Your task to perform on an android device: set an alarm Image 0: 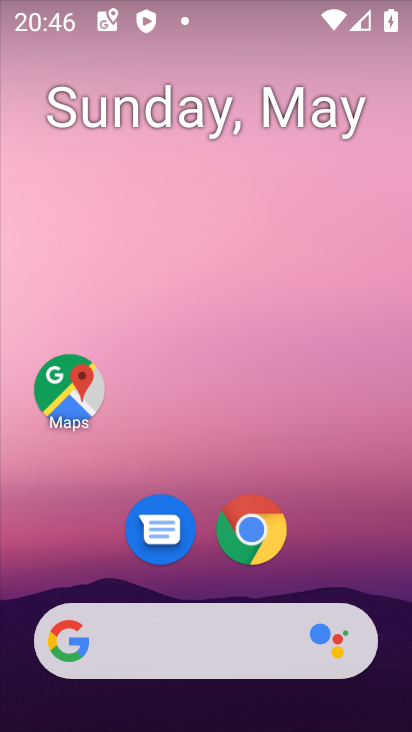
Step 0: drag from (387, 589) to (366, 18)
Your task to perform on an android device: set an alarm Image 1: 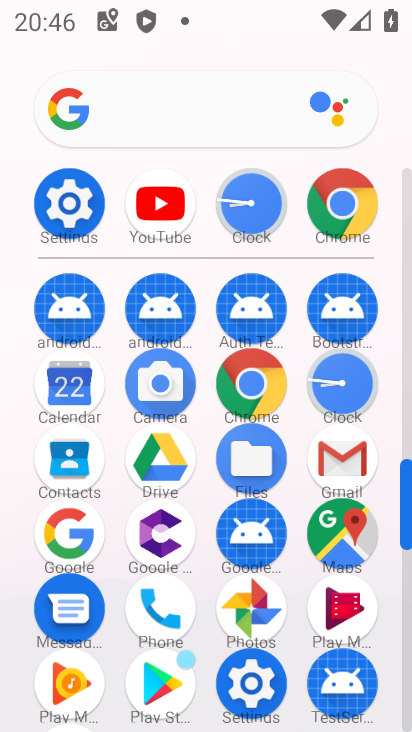
Step 1: click (242, 209)
Your task to perform on an android device: set an alarm Image 2: 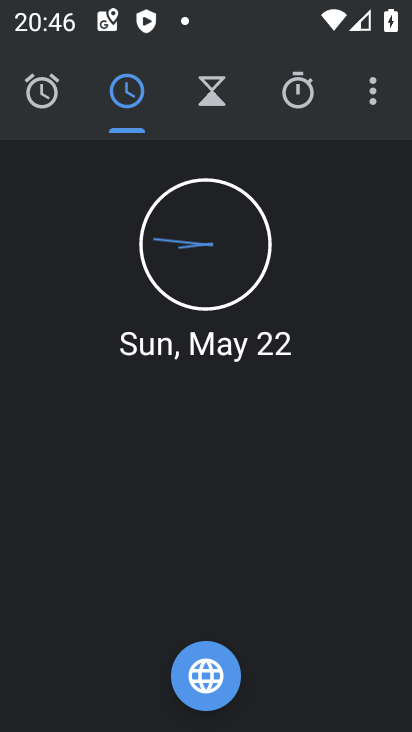
Step 2: click (31, 96)
Your task to perform on an android device: set an alarm Image 3: 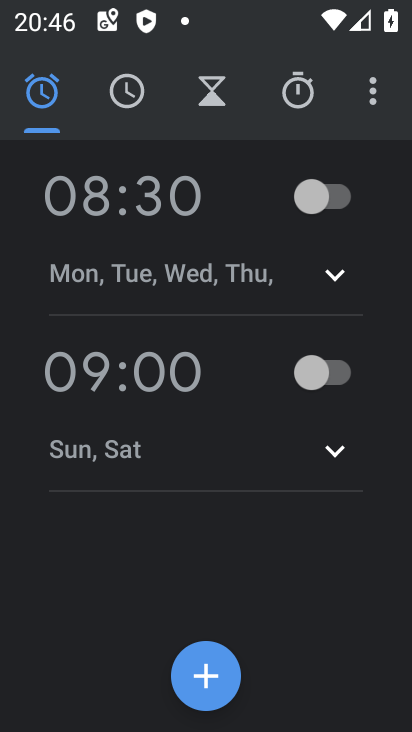
Step 3: click (211, 682)
Your task to perform on an android device: set an alarm Image 4: 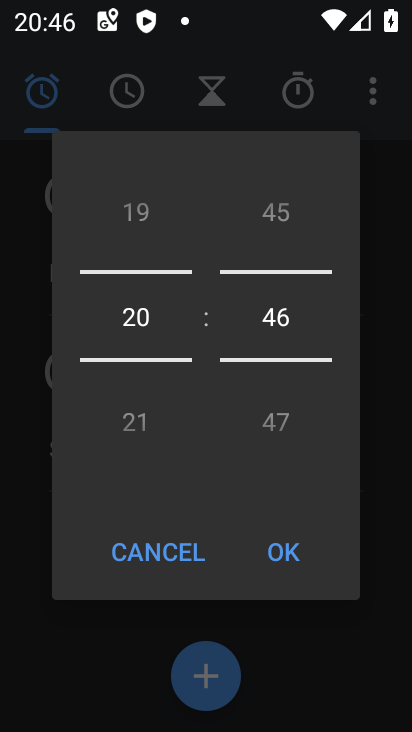
Step 4: drag from (124, 311) to (124, 533)
Your task to perform on an android device: set an alarm Image 5: 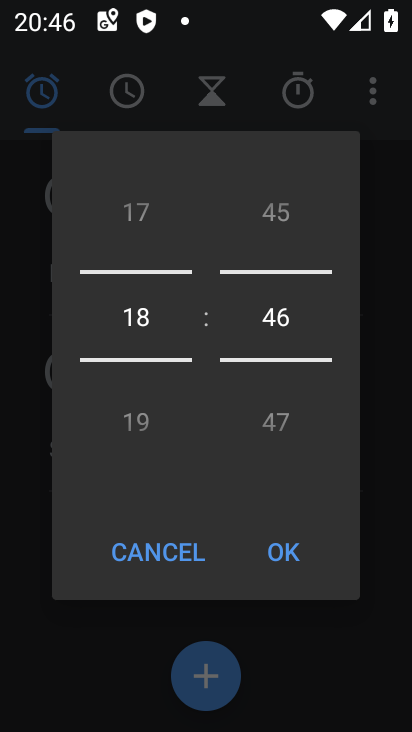
Step 5: drag from (144, 319) to (150, 567)
Your task to perform on an android device: set an alarm Image 6: 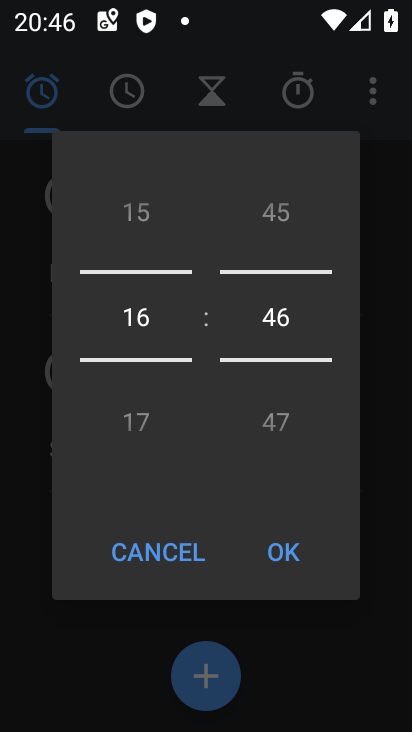
Step 6: drag from (279, 322) to (278, 423)
Your task to perform on an android device: set an alarm Image 7: 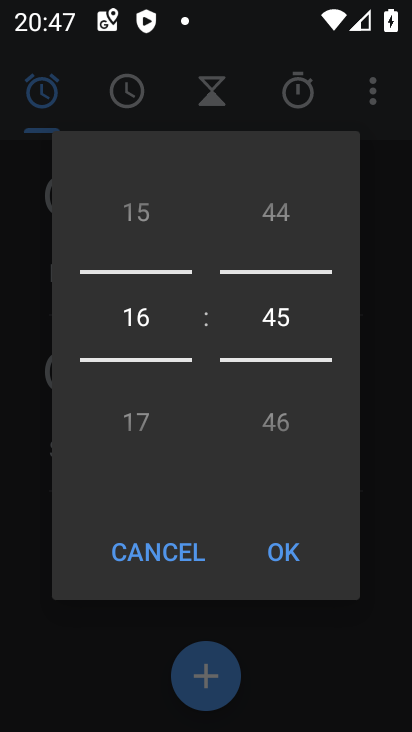
Step 7: click (290, 558)
Your task to perform on an android device: set an alarm Image 8: 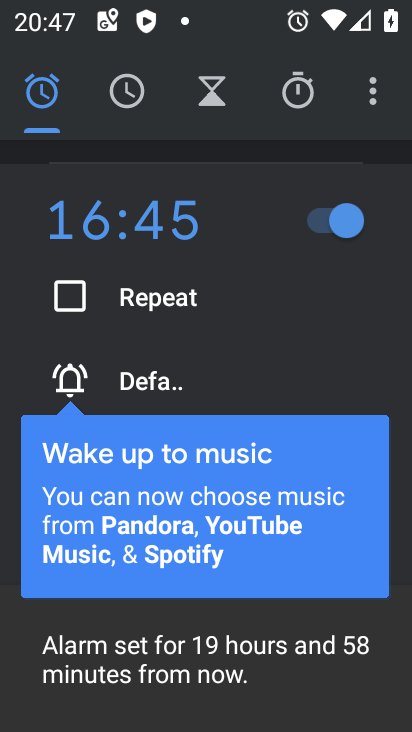
Step 8: task complete